Your task to perform on an android device: Is it going to rain this weekend? Image 0: 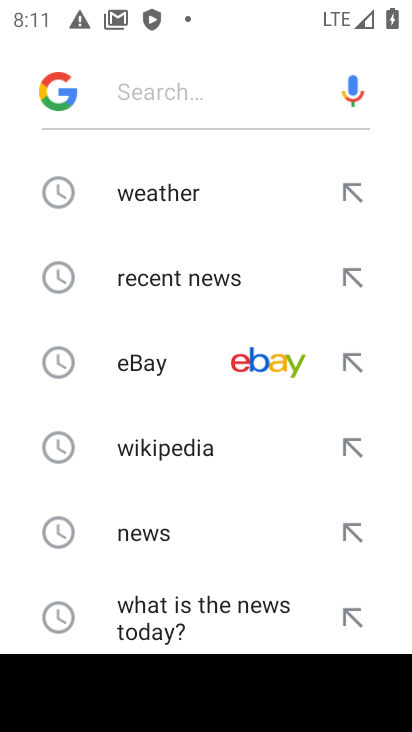
Step 0: press back button
Your task to perform on an android device: Is it going to rain this weekend? Image 1: 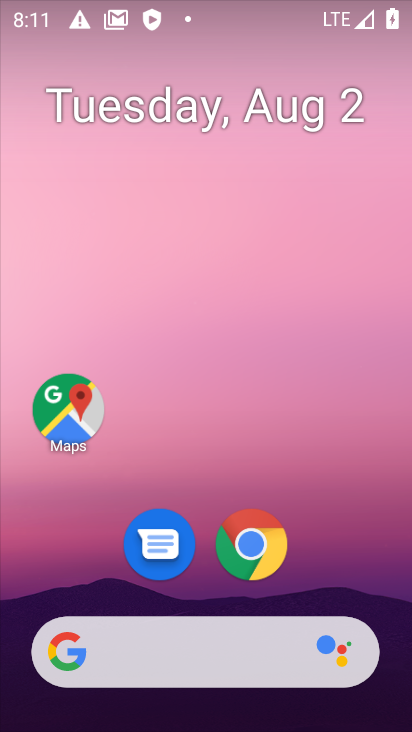
Step 1: drag from (190, 575) to (196, 175)
Your task to perform on an android device: Is it going to rain this weekend? Image 2: 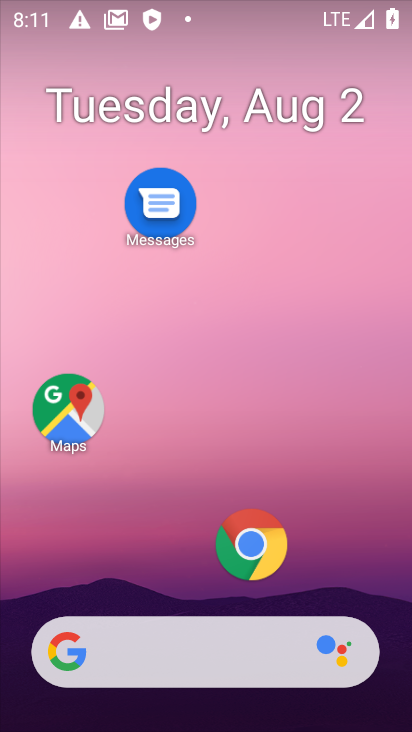
Step 2: drag from (190, 558) to (252, 206)
Your task to perform on an android device: Is it going to rain this weekend? Image 3: 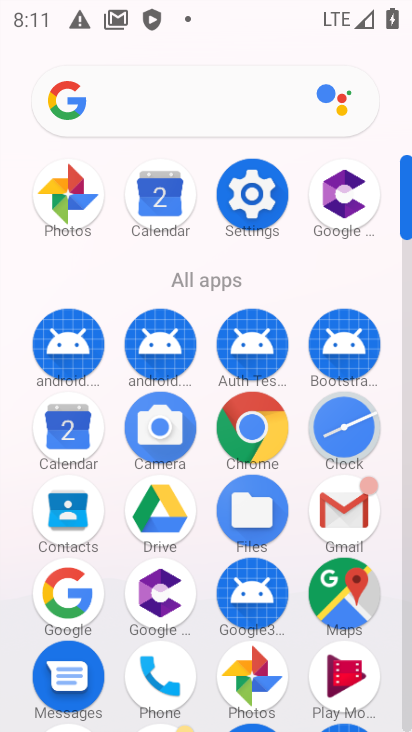
Step 3: click (83, 592)
Your task to perform on an android device: Is it going to rain this weekend? Image 4: 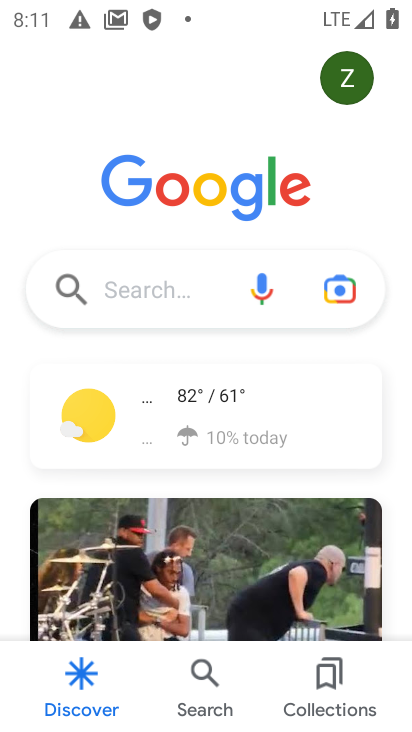
Step 4: click (194, 421)
Your task to perform on an android device: Is it going to rain this weekend? Image 5: 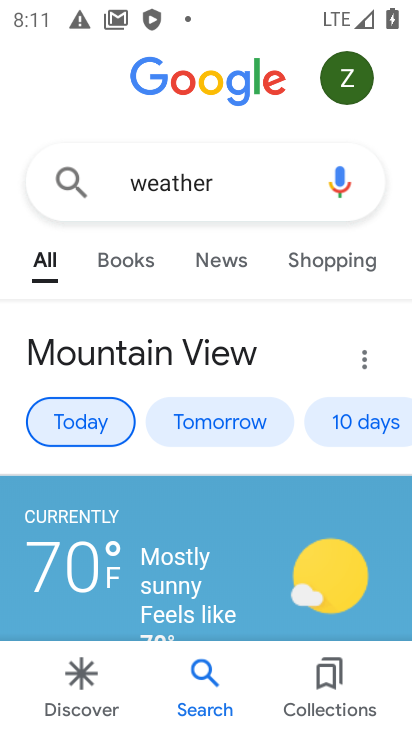
Step 5: click (341, 413)
Your task to perform on an android device: Is it going to rain this weekend? Image 6: 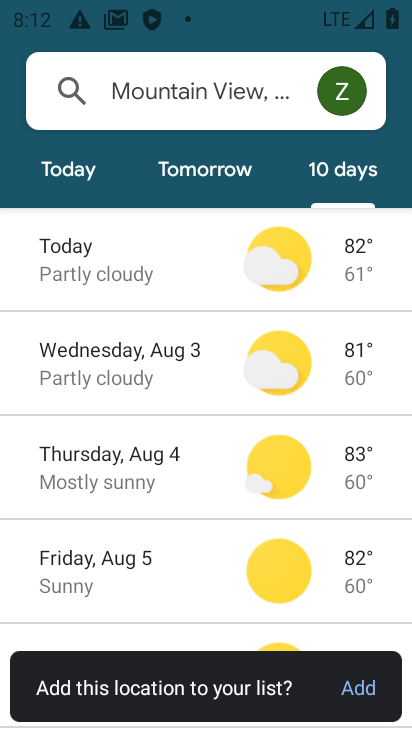
Step 6: task complete